Your task to perform on an android device: Toggle the flashlight Image 0: 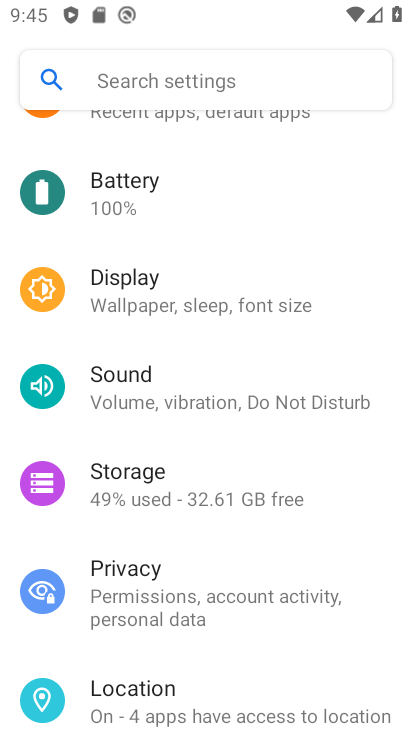
Step 0: drag from (195, 581) to (193, 289)
Your task to perform on an android device: Toggle the flashlight Image 1: 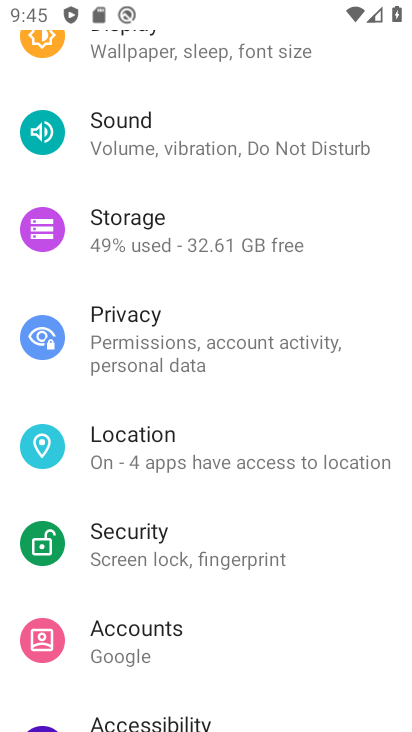
Step 1: task complete